Your task to perform on an android device: What's the weather going to be this weekend? Image 0: 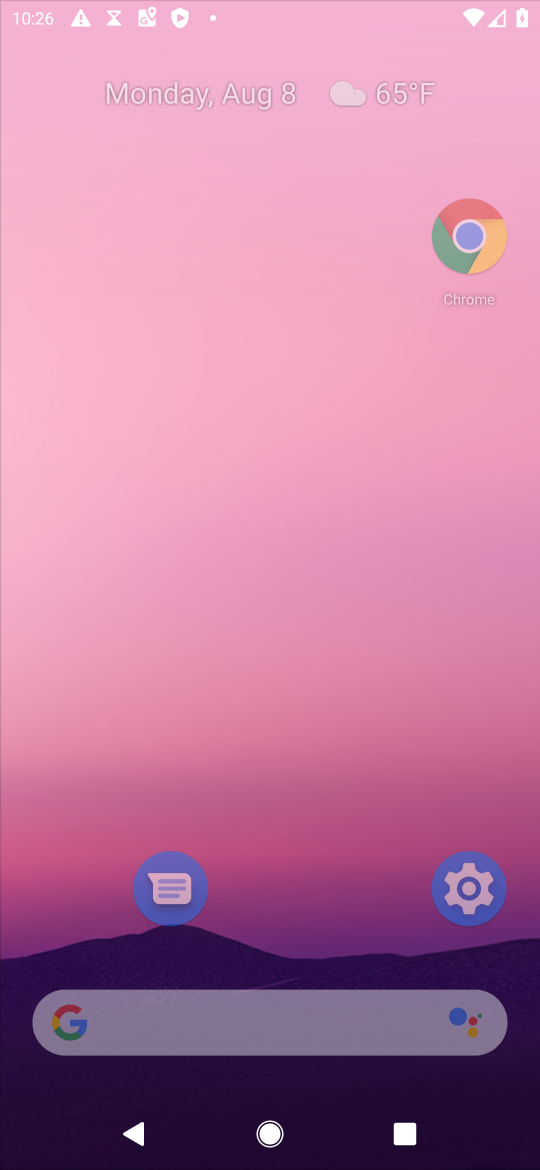
Step 0: press home button
Your task to perform on an android device: What's the weather going to be this weekend? Image 1: 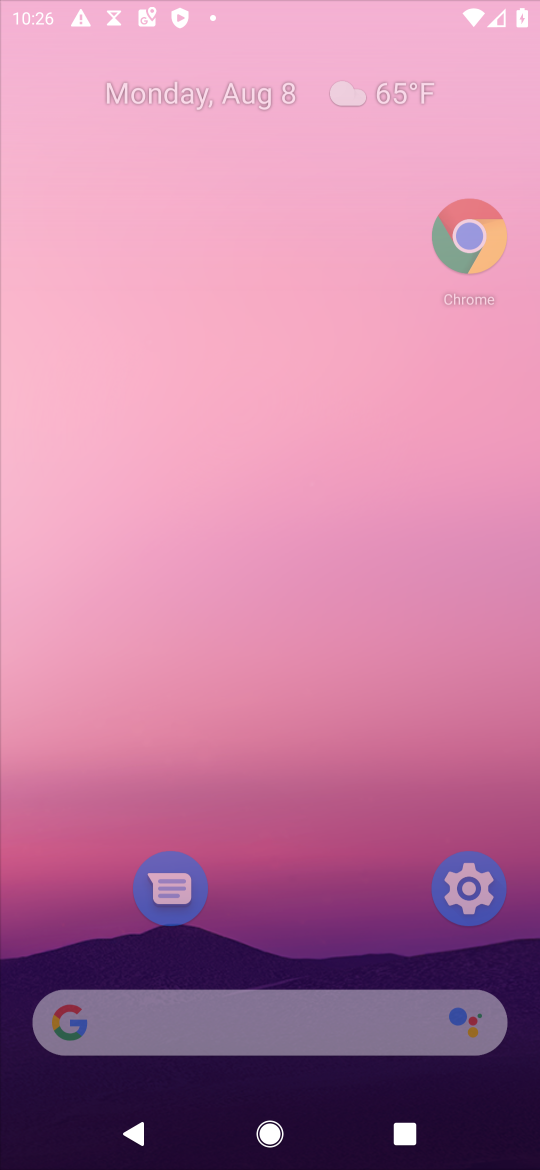
Step 1: click (216, 197)
Your task to perform on an android device: What's the weather going to be this weekend? Image 2: 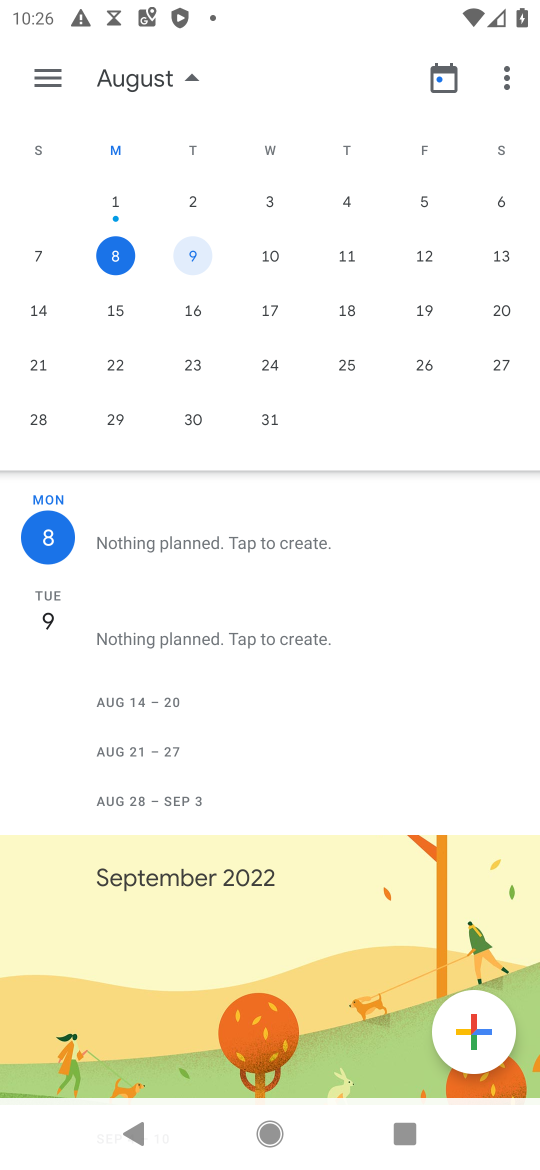
Step 2: press home button
Your task to perform on an android device: What's the weather going to be this weekend? Image 3: 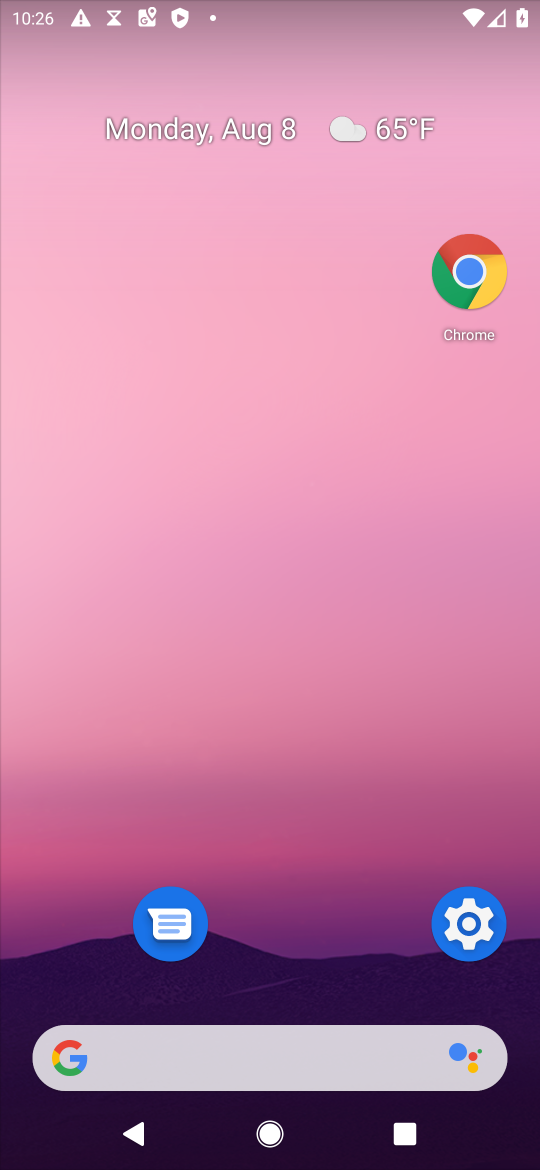
Step 3: click (471, 275)
Your task to perform on an android device: What's the weather going to be this weekend? Image 4: 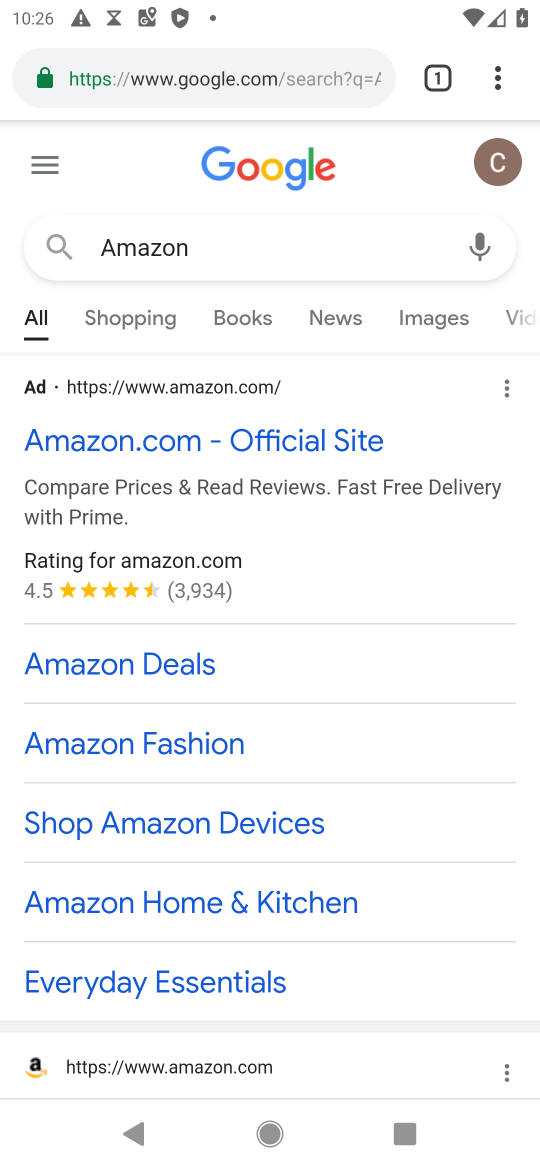
Step 4: click (167, 63)
Your task to perform on an android device: What's the weather going to be this weekend? Image 5: 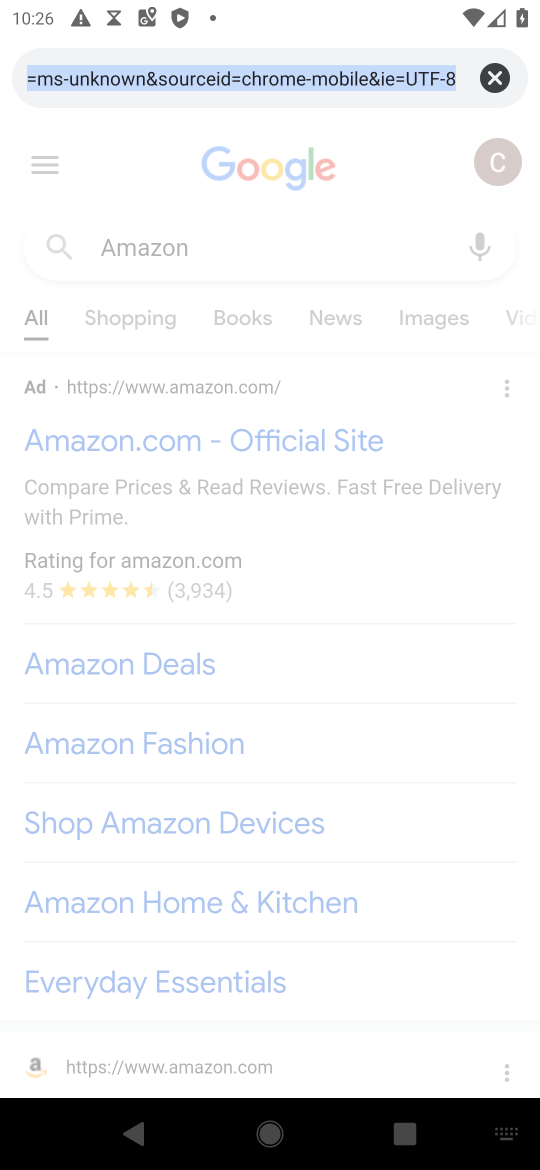
Step 5: type "What's the weather going to be this weekend?"
Your task to perform on an android device: What's the weather going to be this weekend? Image 6: 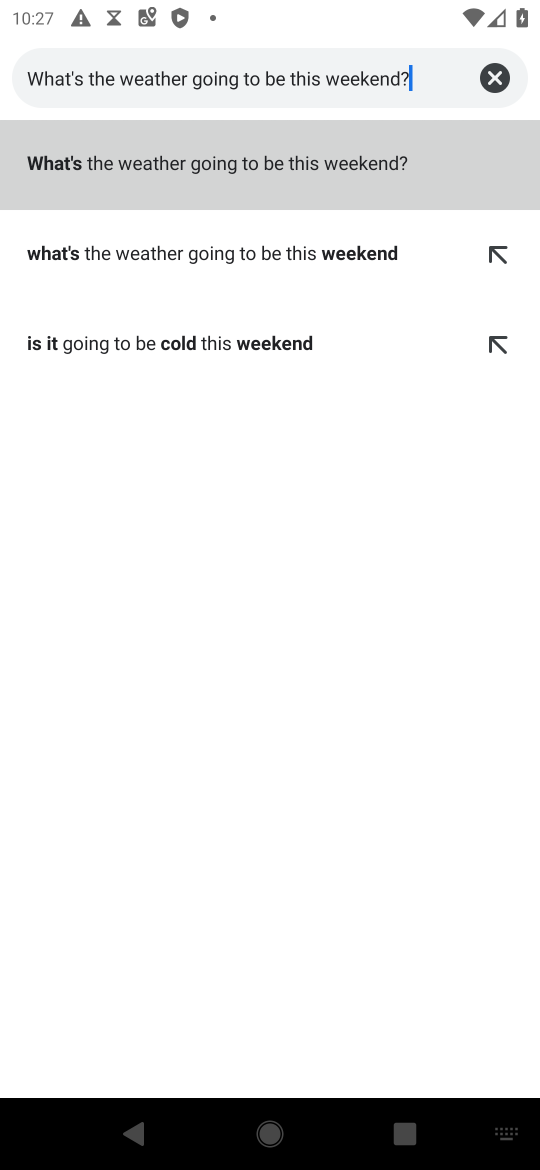
Step 6: click (57, 188)
Your task to perform on an android device: What's the weather going to be this weekend? Image 7: 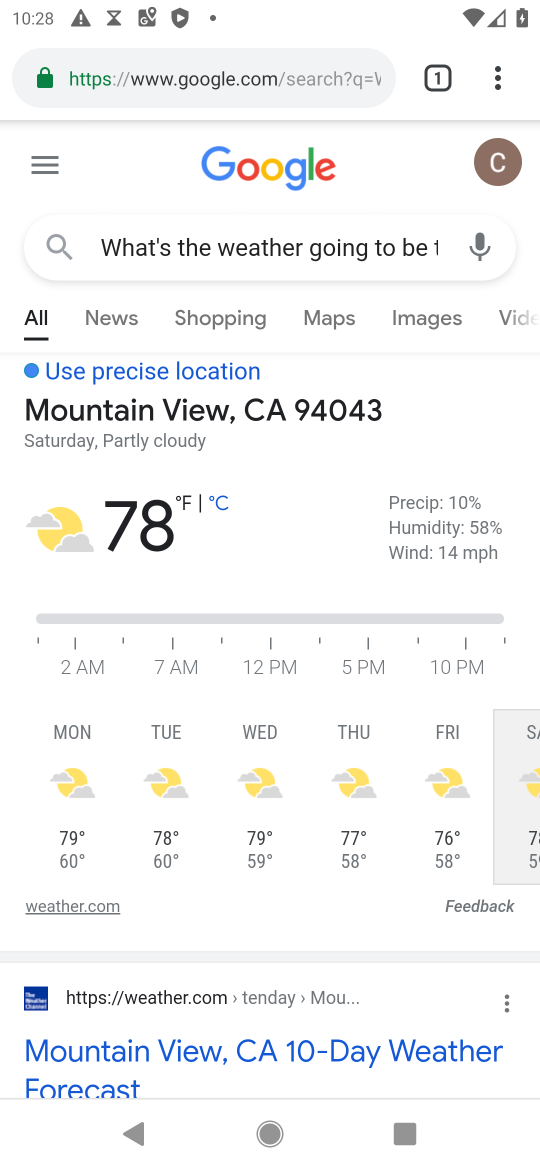
Step 7: task complete